Your task to perform on an android device: What's the weather going to be this weekend? Image 0: 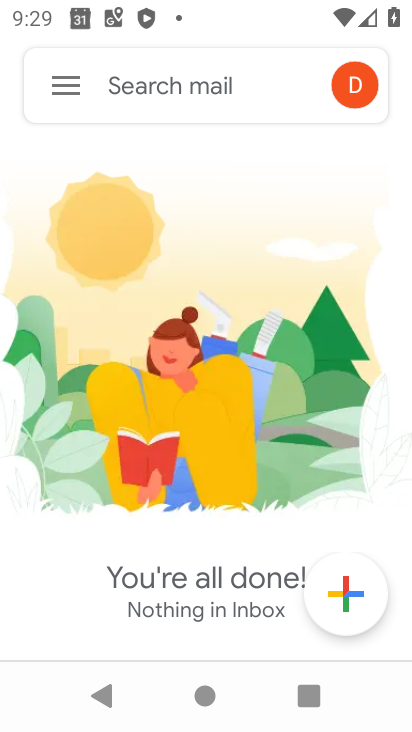
Step 0: press home button
Your task to perform on an android device: What's the weather going to be this weekend? Image 1: 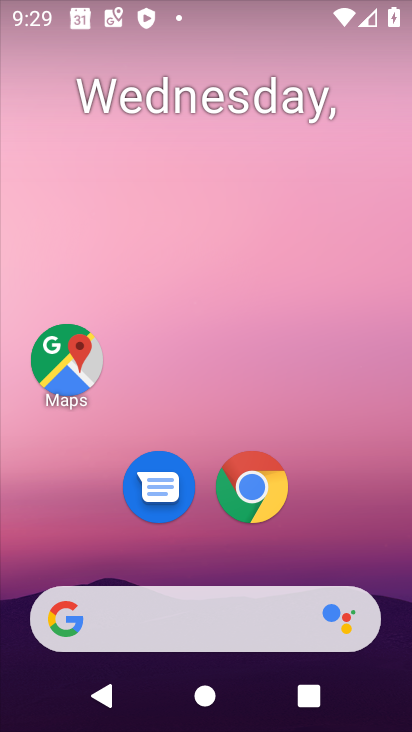
Step 1: drag from (242, 570) to (158, 169)
Your task to perform on an android device: What's the weather going to be this weekend? Image 2: 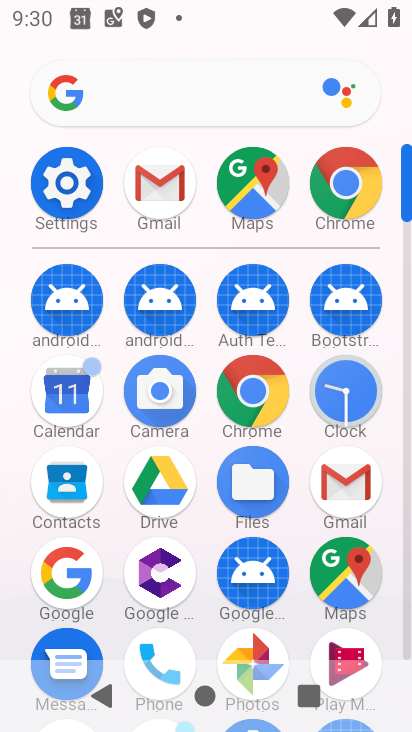
Step 2: click (132, 102)
Your task to perform on an android device: What's the weather going to be this weekend? Image 3: 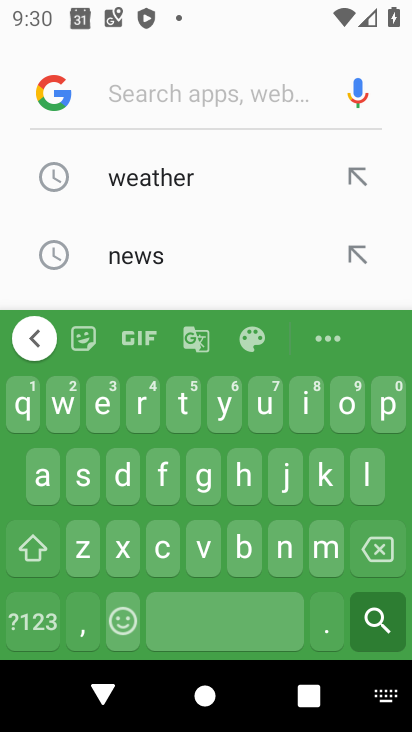
Step 3: click (183, 179)
Your task to perform on an android device: What's the weather going to be this weekend? Image 4: 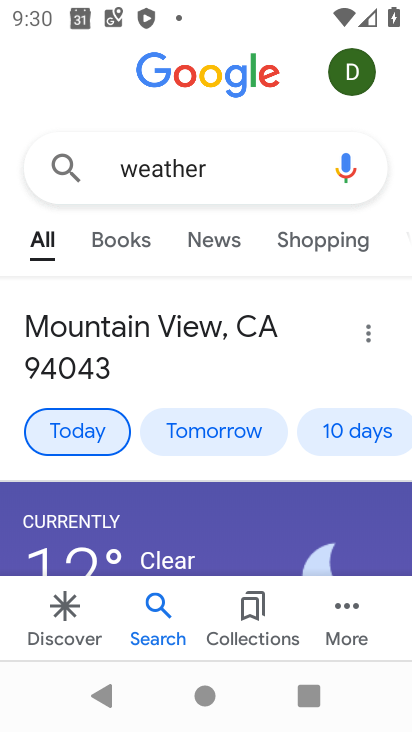
Step 4: click (370, 439)
Your task to perform on an android device: What's the weather going to be this weekend? Image 5: 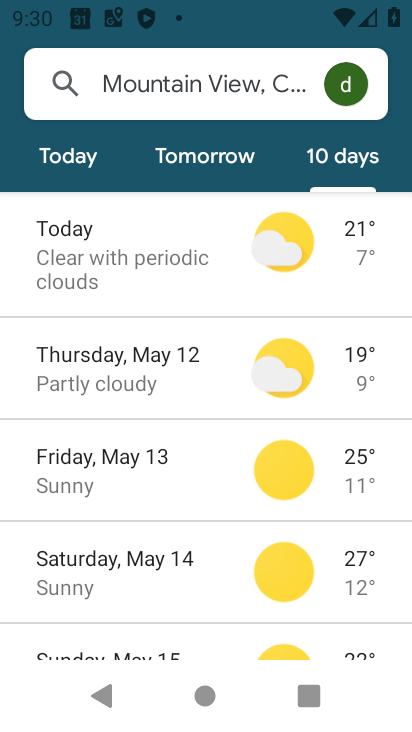
Step 5: task complete